Your task to perform on an android device: Open accessibility settings Image 0: 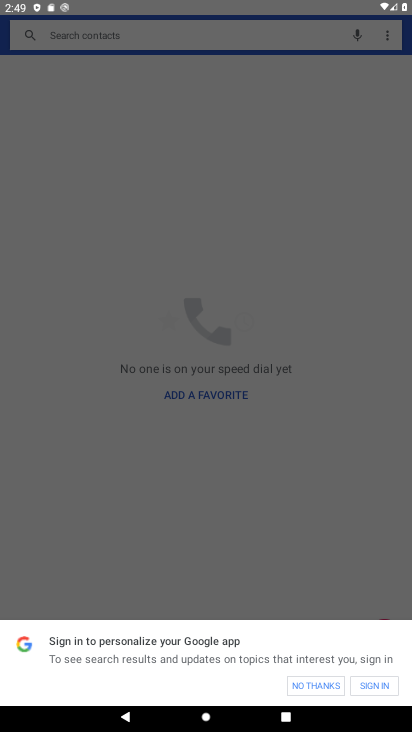
Step 0: press home button
Your task to perform on an android device: Open accessibility settings Image 1: 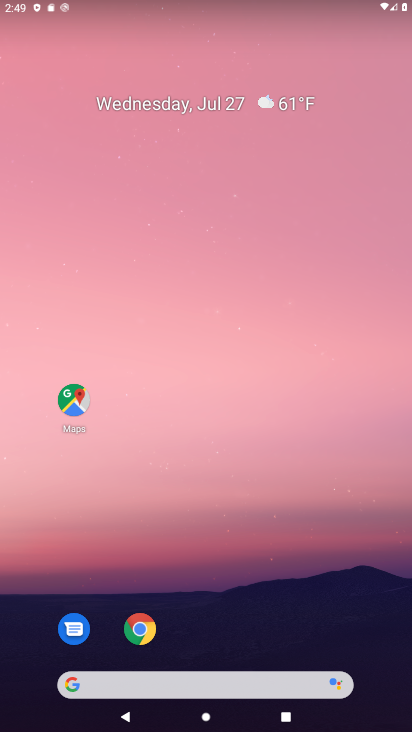
Step 1: drag from (251, 633) to (221, 62)
Your task to perform on an android device: Open accessibility settings Image 2: 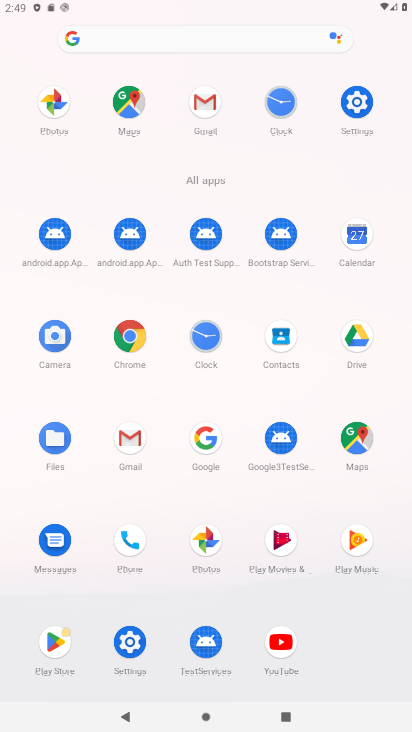
Step 2: click (355, 98)
Your task to perform on an android device: Open accessibility settings Image 3: 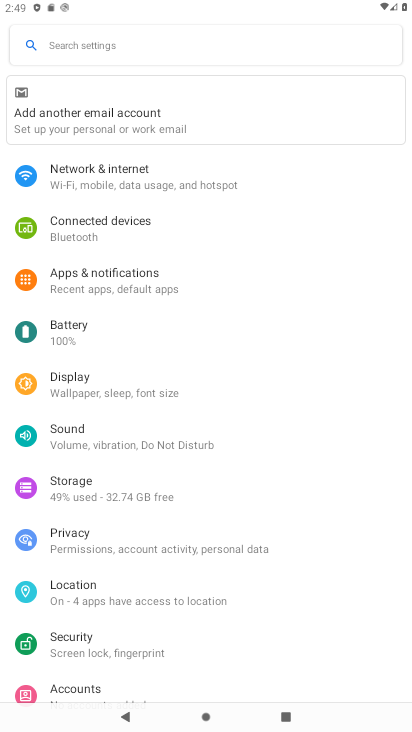
Step 3: drag from (125, 628) to (120, 278)
Your task to perform on an android device: Open accessibility settings Image 4: 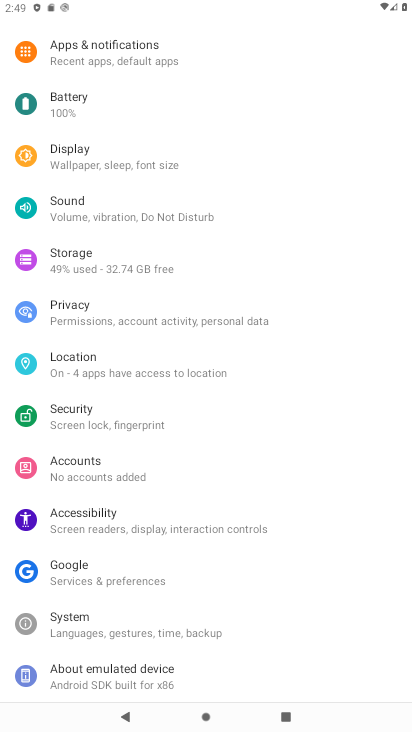
Step 4: click (150, 527)
Your task to perform on an android device: Open accessibility settings Image 5: 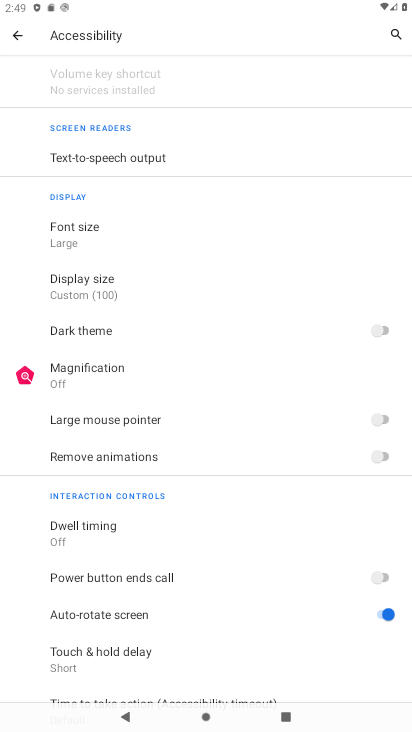
Step 5: task complete